Your task to perform on an android device: Do I have any events tomorrow? Image 0: 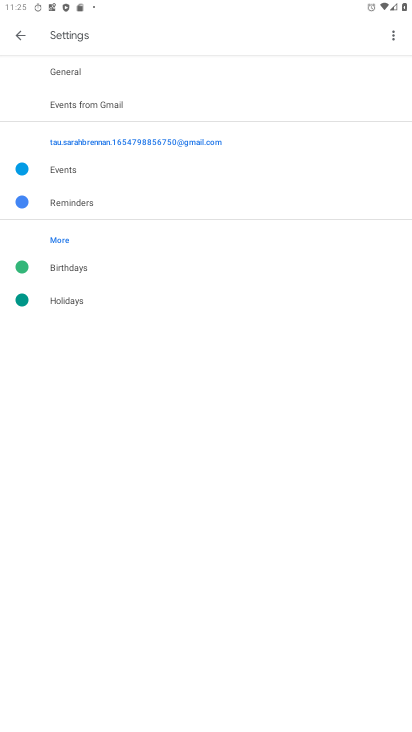
Step 0: press home button
Your task to perform on an android device: Do I have any events tomorrow? Image 1: 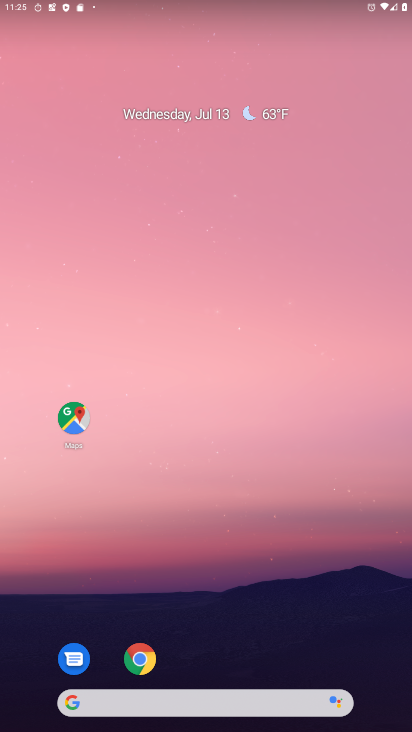
Step 1: drag from (238, 599) to (197, 33)
Your task to perform on an android device: Do I have any events tomorrow? Image 2: 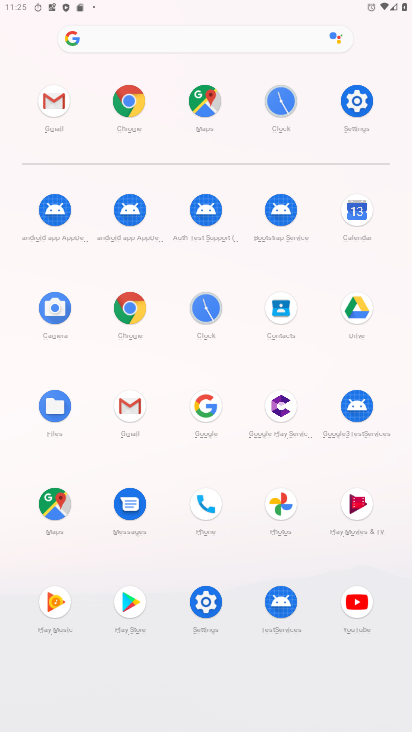
Step 2: click (351, 213)
Your task to perform on an android device: Do I have any events tomorrow? Image 3: 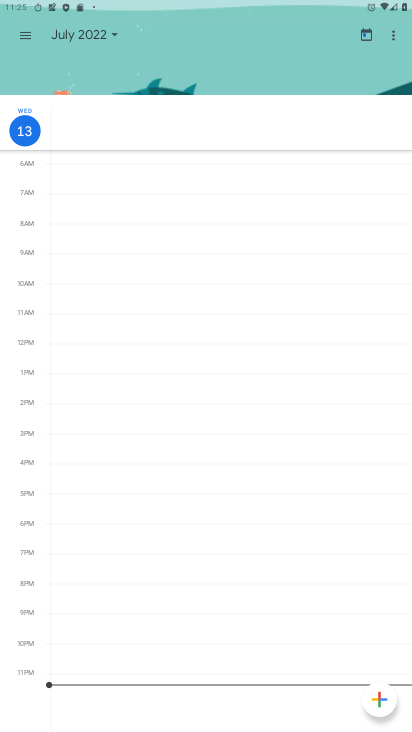
Step 3: click (90, 33)
Your task to perform on an android device: Do I have any events tomorrow? Image 4: 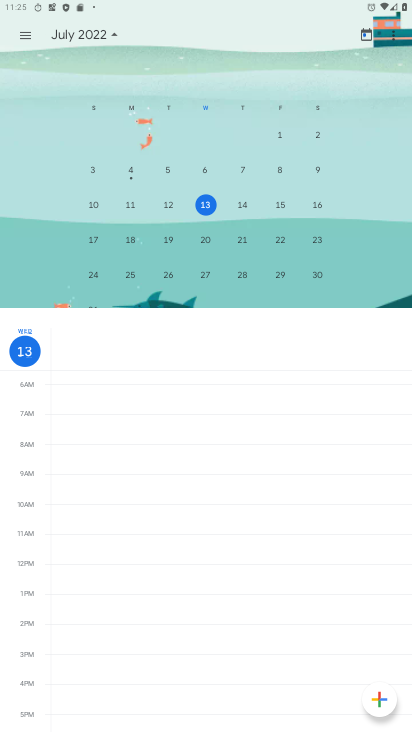
Step 4: click (242, 203)
Your task to perform on an android device: Do I have any events tomorrow? Image 5: 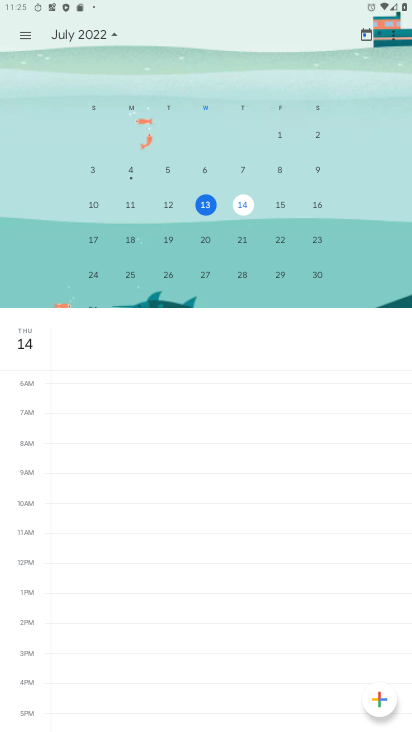
Step 5: click (241, 199)
Your task to perform on an android device: Do I have any events tomorrow? Image 6: 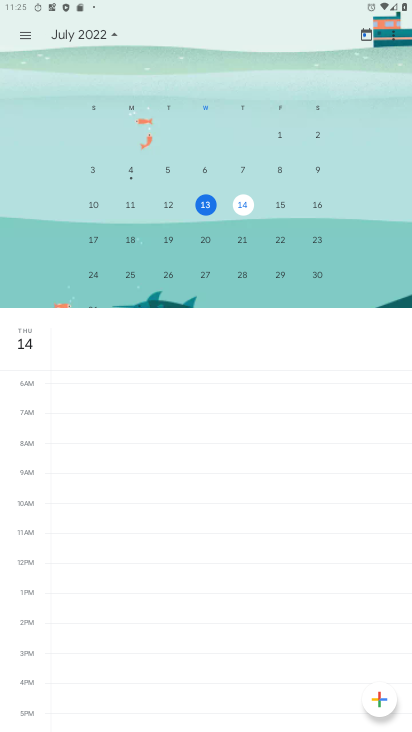
Step 6: click (241, 199)
Your task to perform on an android device: Do I have any events tomorrow? Image 7: 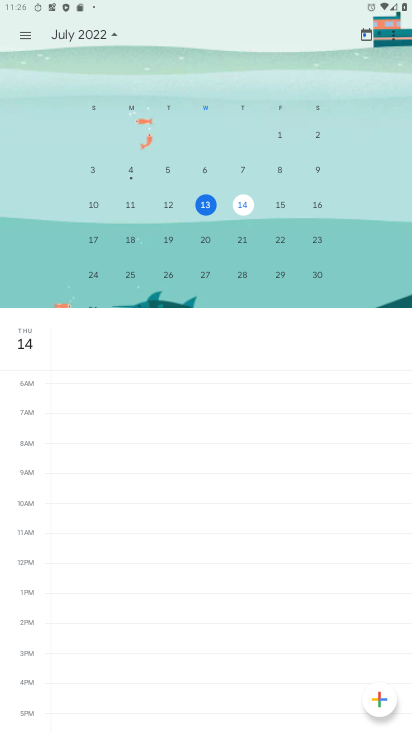
Step 7: task complete